Your task to perform on an android device: Search for sushi restaurants on Maps Image 0: 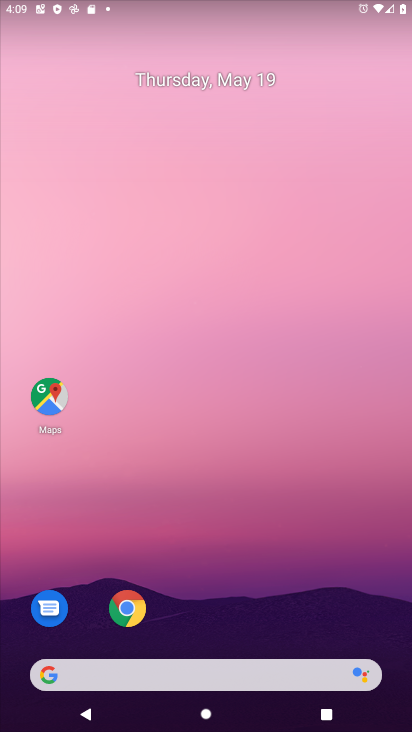
Step 0: click (55, 415)
Your task to perform on an android device: Search for sushi restaurants on Maps Image 1: 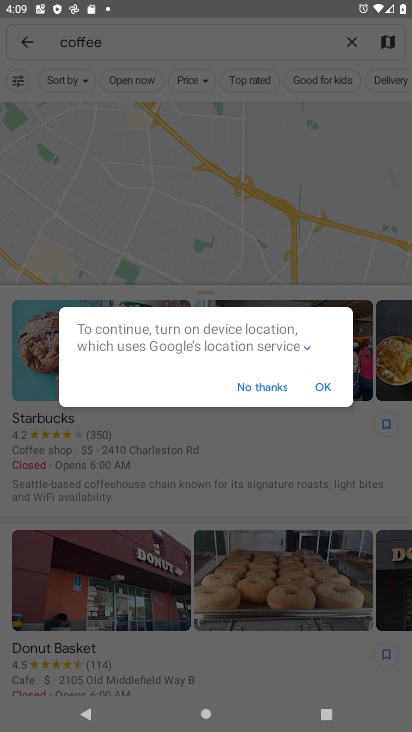
Step 1: click (316, 379)
Your task to perform on an android device: Search for sushi restaurants on Maps Image 2: 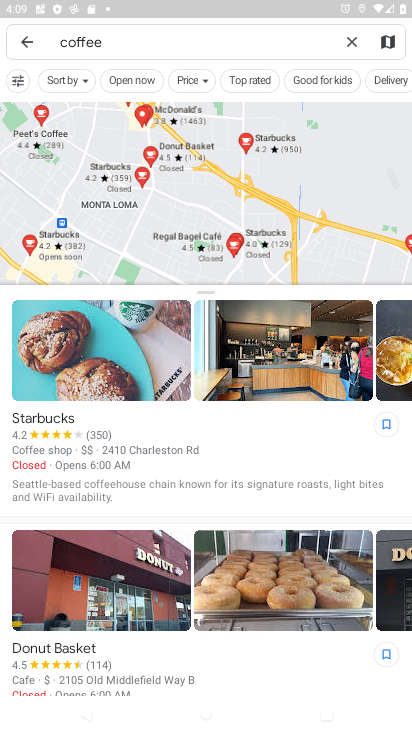
Step 2: click (356, 46)
Your task to perform on an android device: Search for sushi restaurants on Maps Image 3: 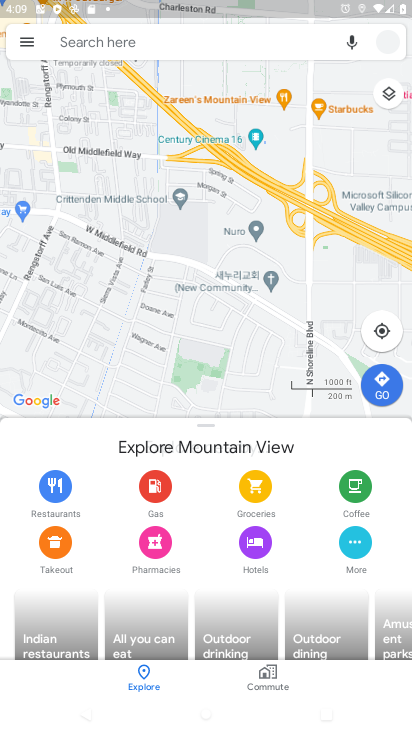
Step 3: click (182, 46)
Your task to perform on an android device: Search for sushi restaurants on Maps Image 4: 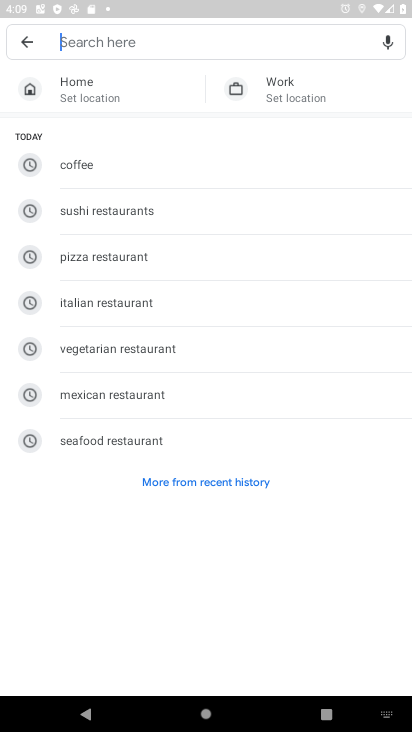
Step 4: click (155, 221)
Your task to perform on an android device: Search for sushi restaurants on Maps Image 5: 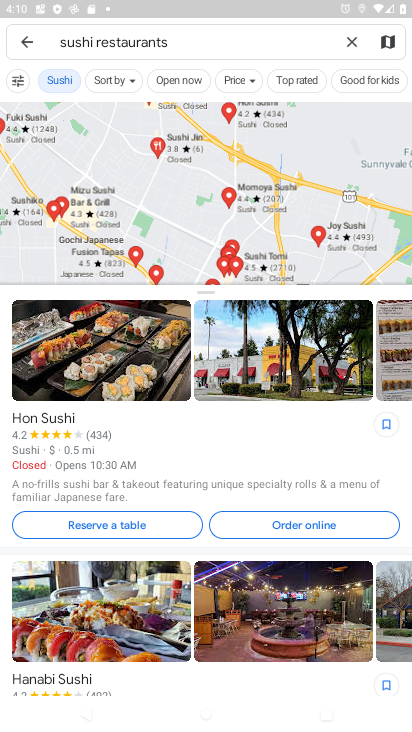
Step 5: task complete